Your task to perform on an android device: View the shopping cart on ebay. Add "acer predator" to the cart on ebay Image 0: 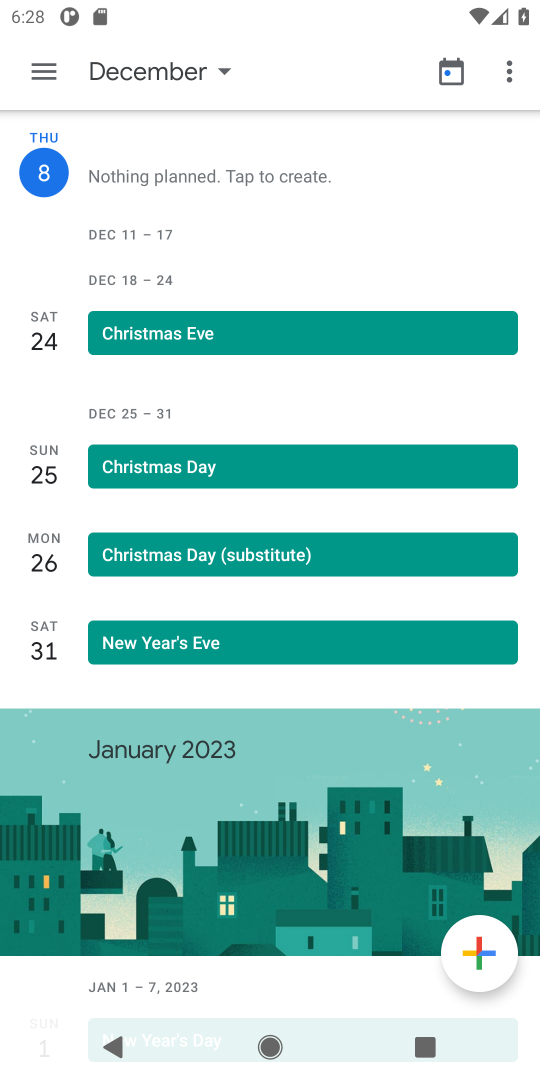
Step 0: press home button
Your task to perform on an android device: View the shopping cart on ebay. Add "acer predator" to the cart on ebay Image 1: 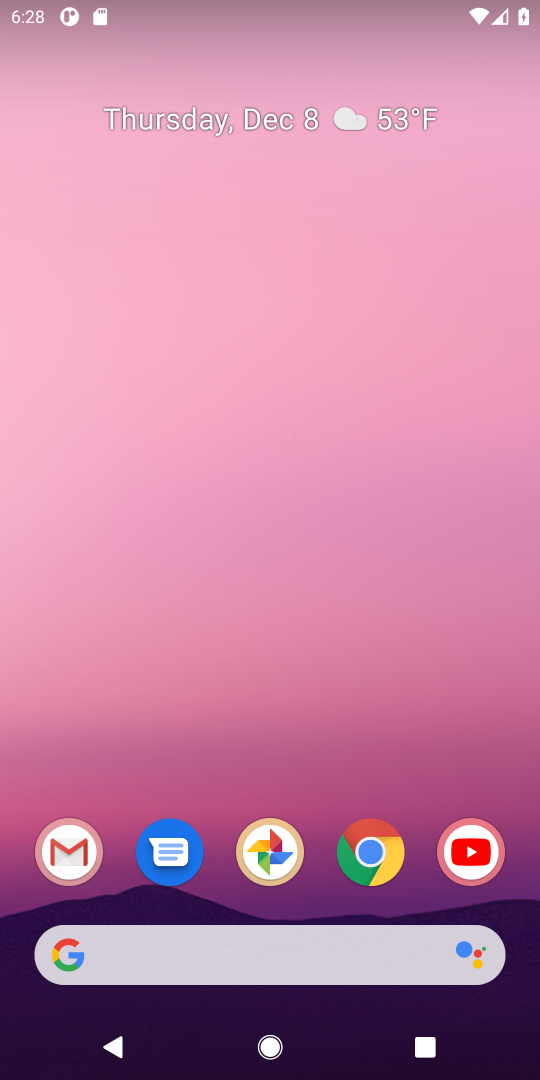
Step 1: click (246, 946)
Your task to perform on an android device: View the shopping cart on ebay. Add "acer predator" to the cart on ebay Image 2: 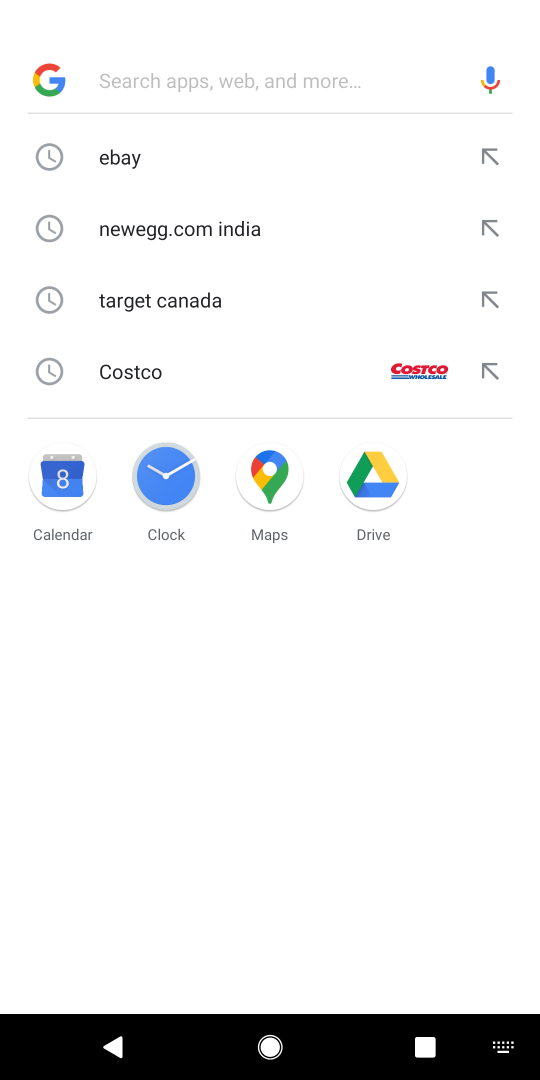
Step 2: type "ebay"
Your task to perform on an android device: View the shopping cart on ebay. Add "acer predator" to the cart on ebay Image 3: 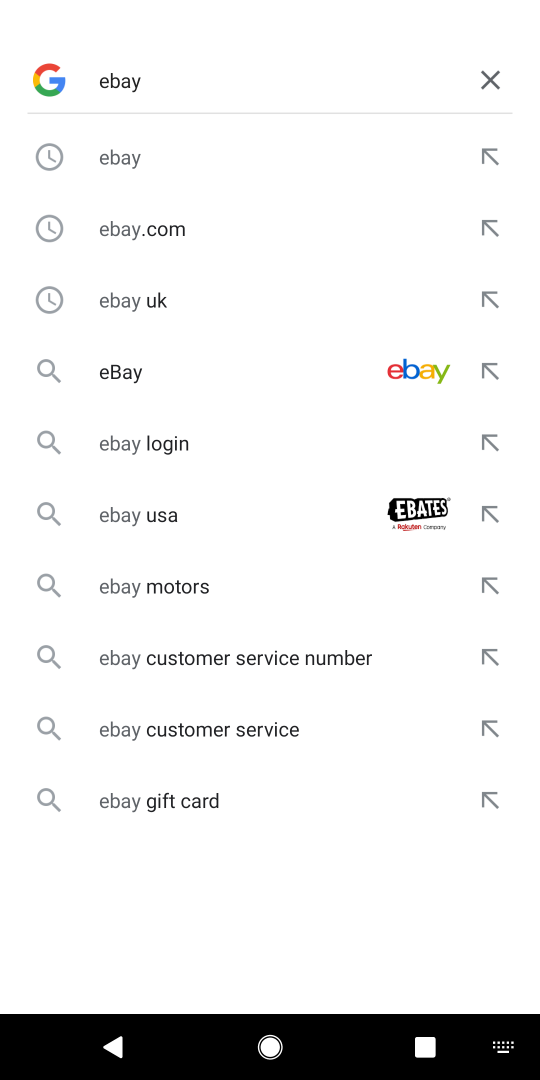
Step 3: click (308, 155)
Your task to perform on an android device: View the shopping cart on ebay. Add "acer predator" to the cart on ebay Image 4: 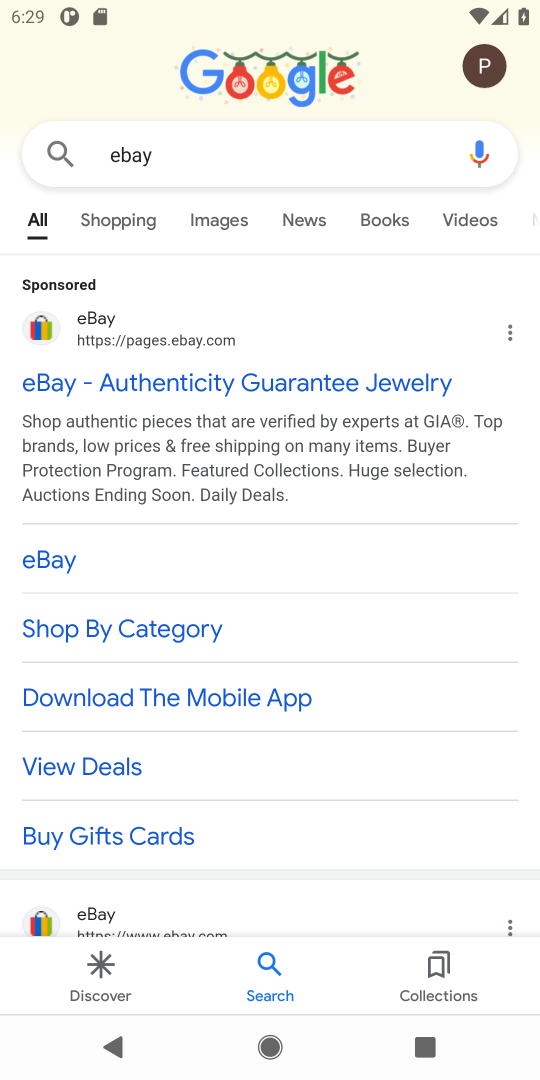
Step 4: click (231, 366)
Your task to perform on an android device: View the shopping cart on ebay. Add "acer predator" to the cart on ebay Image 5: 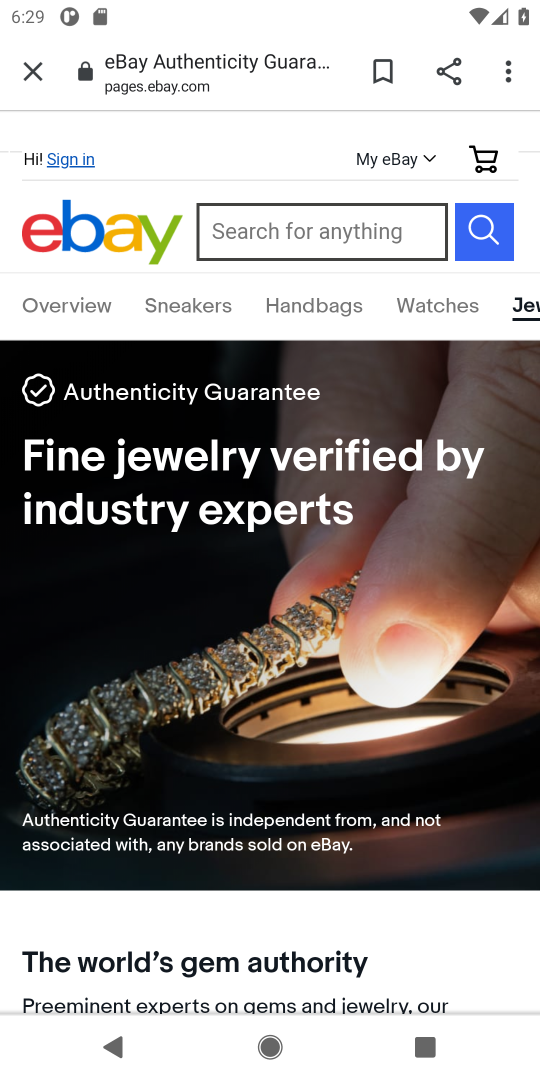
Step 5: click (274, 218)
Your task to perform on an android device: View the shopping cart on ebay. Add "acer predator" to the cart on ebay Image 6: 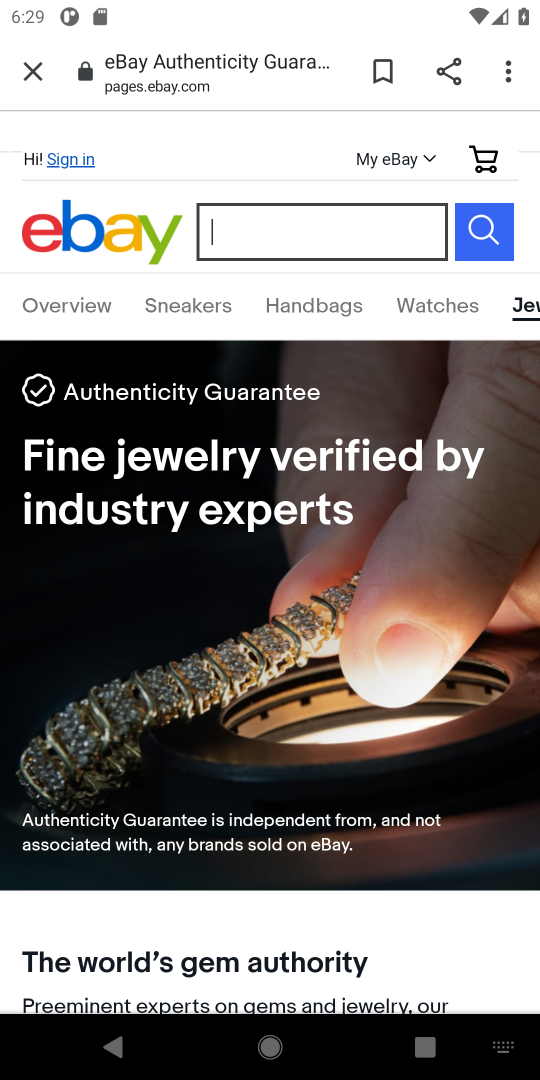
Step 6: type "acer predator"
Your task to perform on an android device: View the shopping cart on ebay. Add "acer predator" to the cart on ebay Image 7: 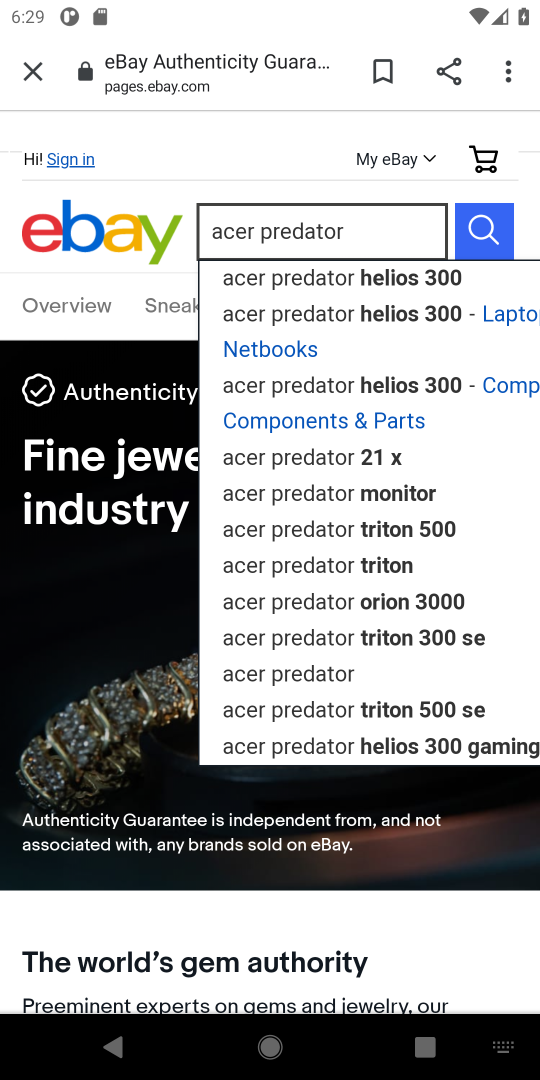
Step 7: click (461, 239)
Your task to perform on an android device: View the shopping cart on ebay. Add "acer predator" to the cart on ebay Image 8: 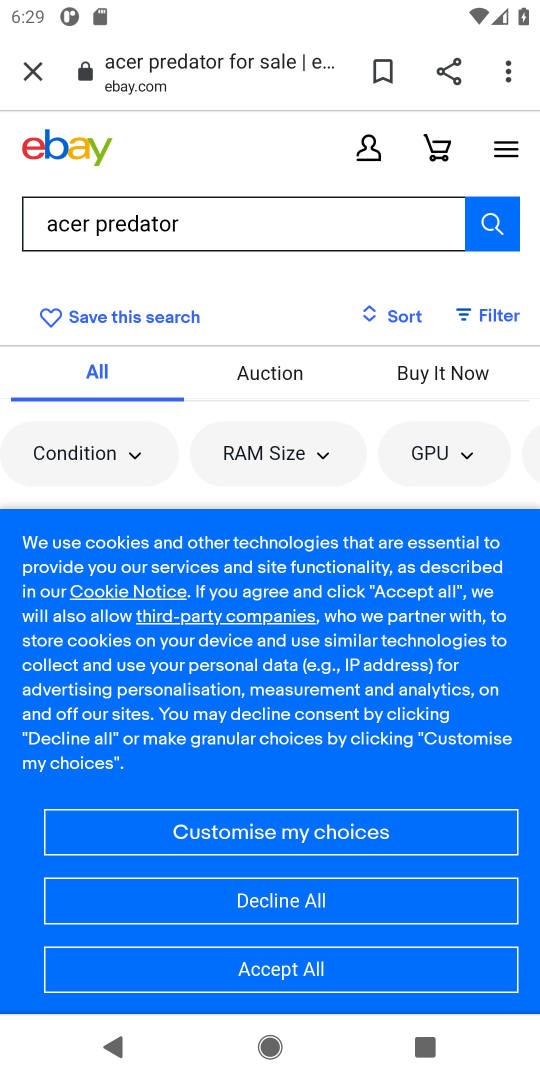
Step 8: click (327, 967)
Your task to perform on an android device: View the shopping cart on ebay. Add "acer predator" to the cart on ebay Image 9: 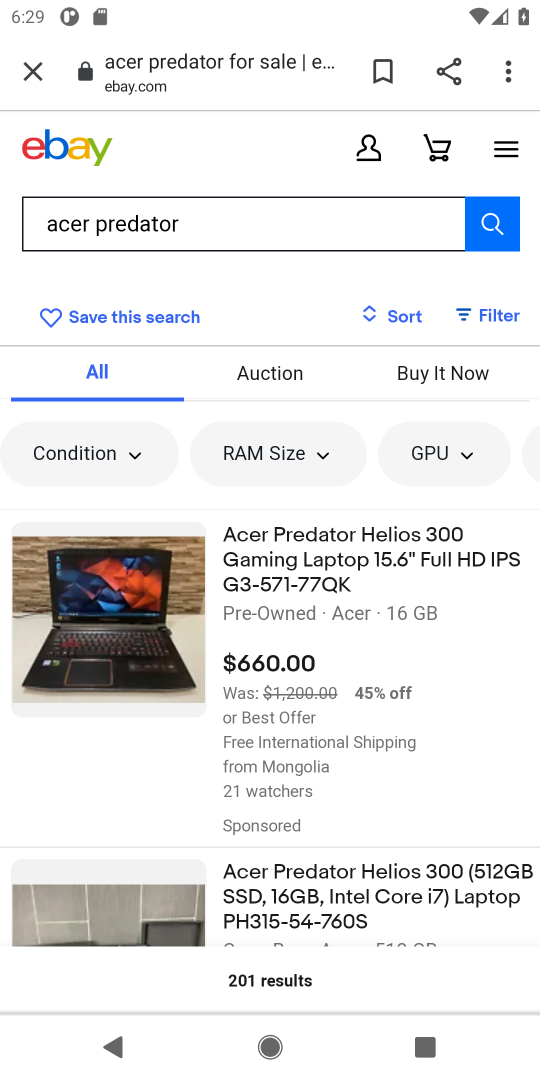
Step 9: click (408, 574)
Your task to perform on an android device: View the shopping cart on ebay. Add "acer predator" to the cart on ebay Image 10: 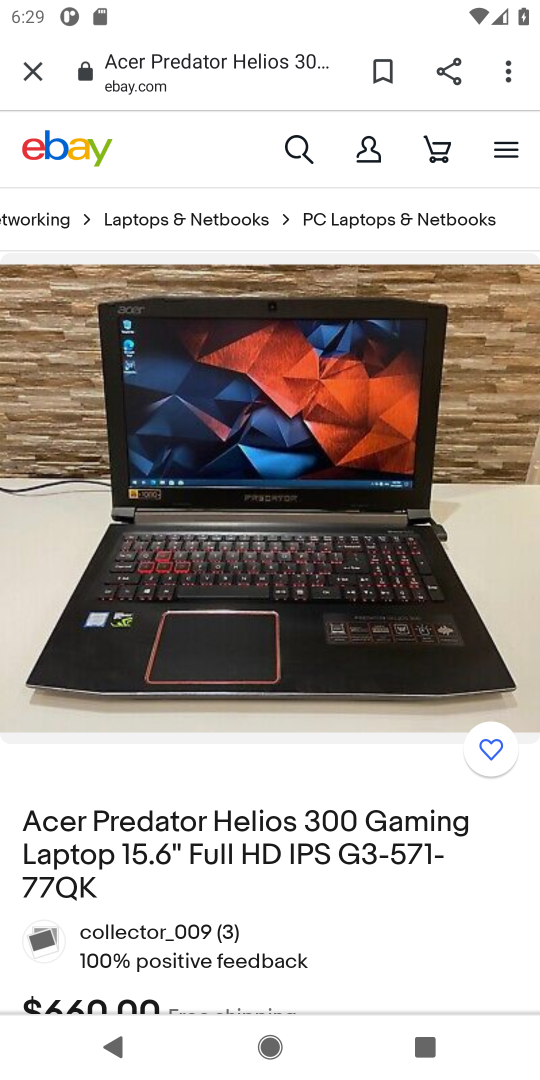
Step 10: drag from (363, 872) to (351, 424)
Your task to perform on an android device: View the shopping cart on ebay. Add "acer predator" to the cart on ebay Image 11: 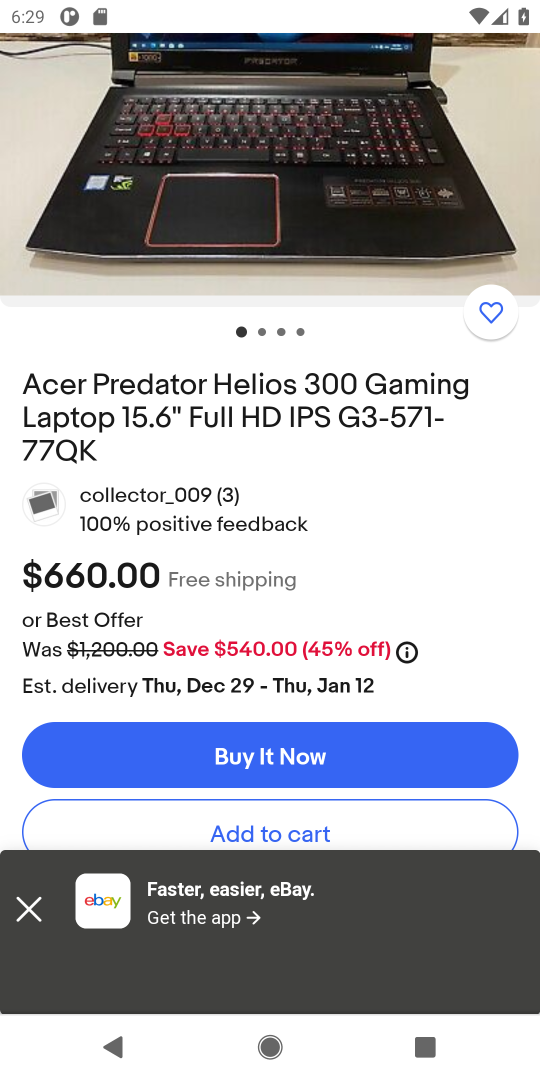
Step 11: click (233, 873)
Your task to perform on an android device: View the shopping cart on ebay. Add "acer predator" to the cart on ebay Image 12: 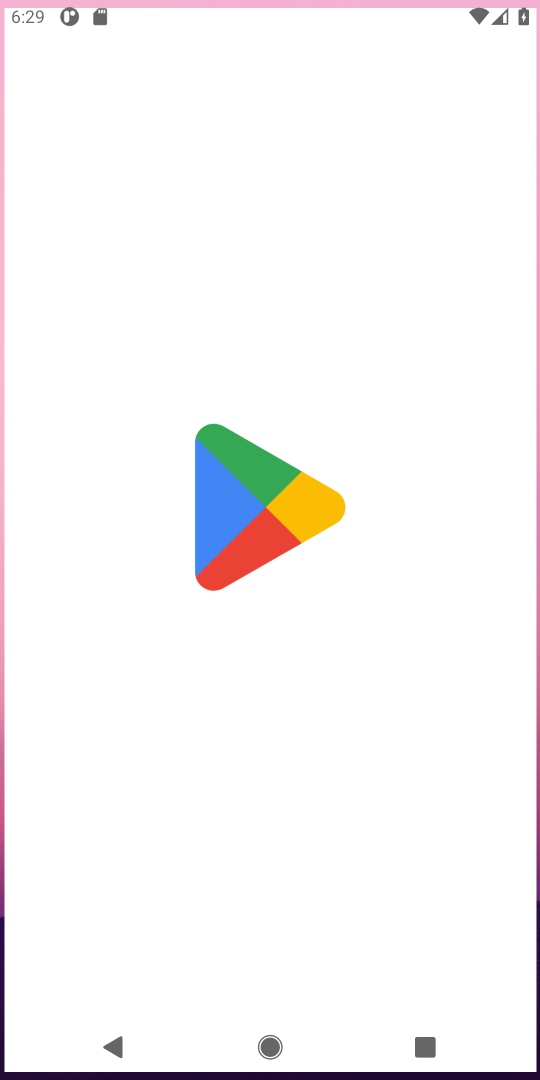
Step 12: task complete